Your task to perform on an android device: clear all cookies in the chrome app Image 0: 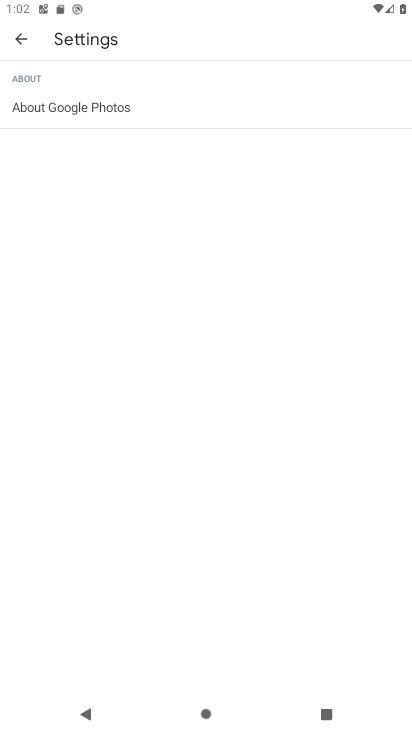
Step 0: press home button
Your task to perform on an android device: clear all cookies in the chrome app Image 1: 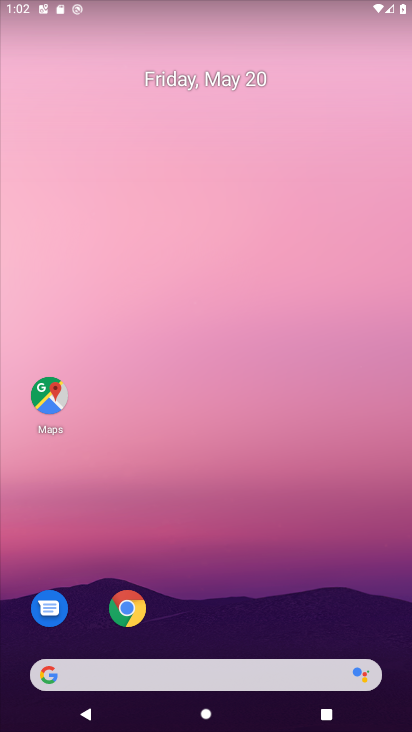
Step 1: click (131, 615)
Your task to perform on an android device: clear all cookies in the chrome app Image 2: 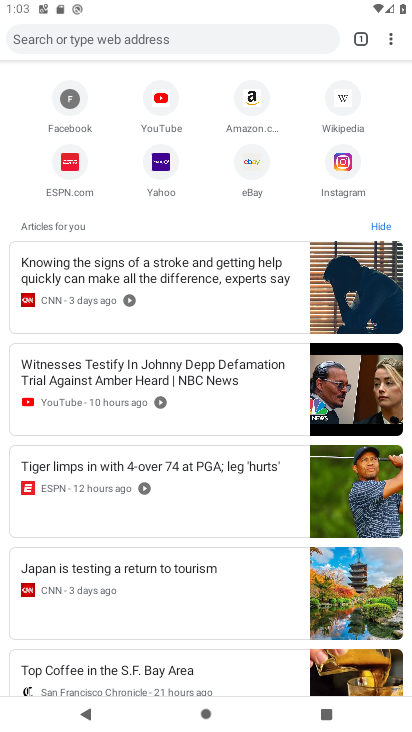
Step 2: task complete